Your task to perform on an android device: turn on notifications settings in the gmail app Image 0: 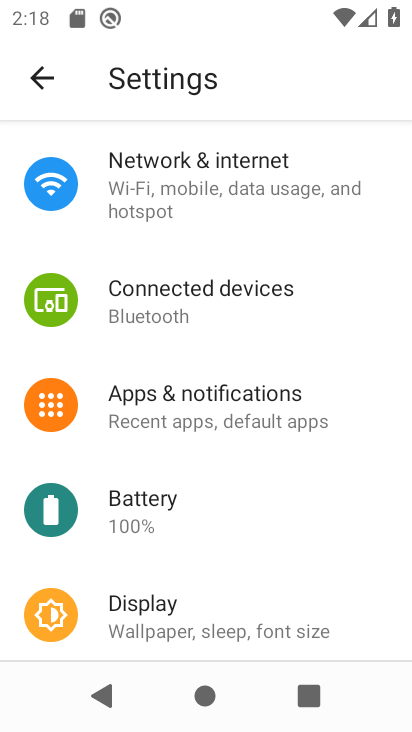
Step 0: press home button
Your task to perform on an android device: turn on notifications settings in the gmail app Image 1: 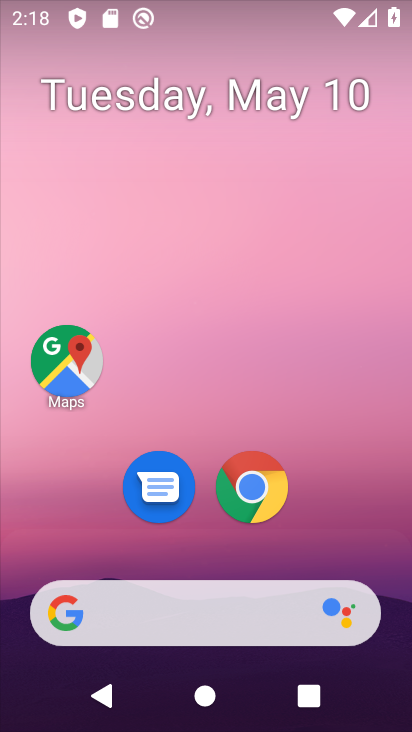
Step 1: drag from (143, 569) to (257, 62)
Your task to perform on an android device: turn on notifications settings in the gmail app Image 2: 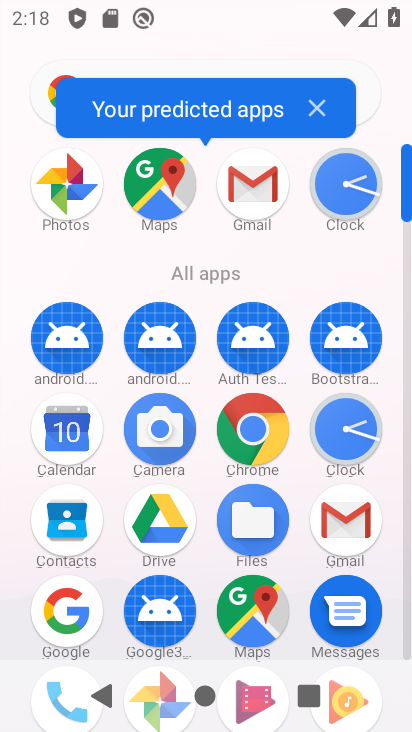
Step 2: click (351, 519)
Your task to perform on an android device: turn on notifications settings in the gmail app Image 3: 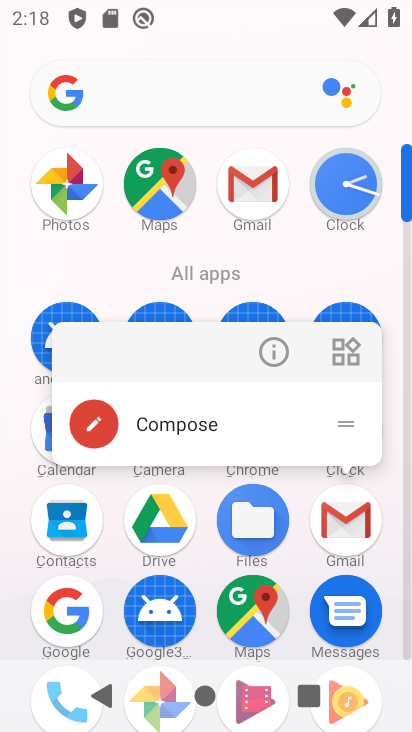
Step 3: click (351, 522)
Your task to perform on an android device: turn on notifications settings in the gmail app Image 4: 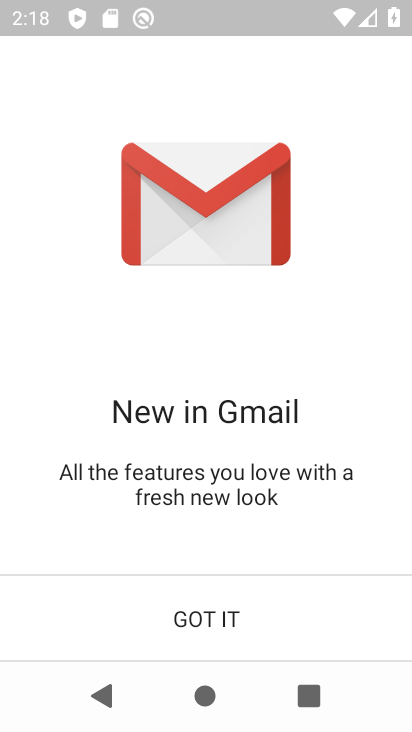
Step 4: click (213, 639)
Your task to perform on an android device: turn on notifications settings in the gmail app Image 5: 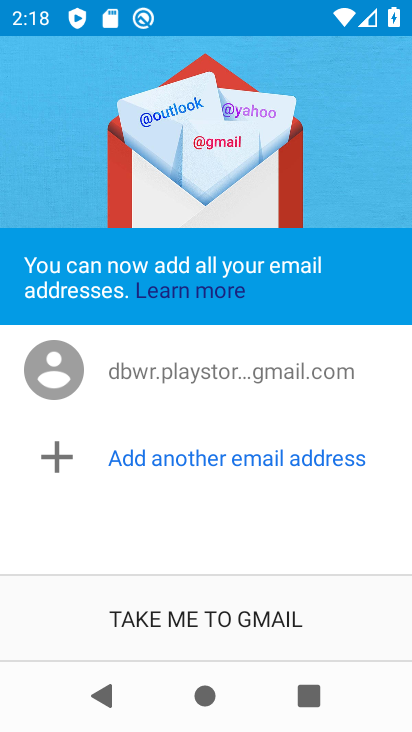
Step 5: click (221, 619)
Your task to perform on an android device: turn on notifications settings in the gmail app Image 6: 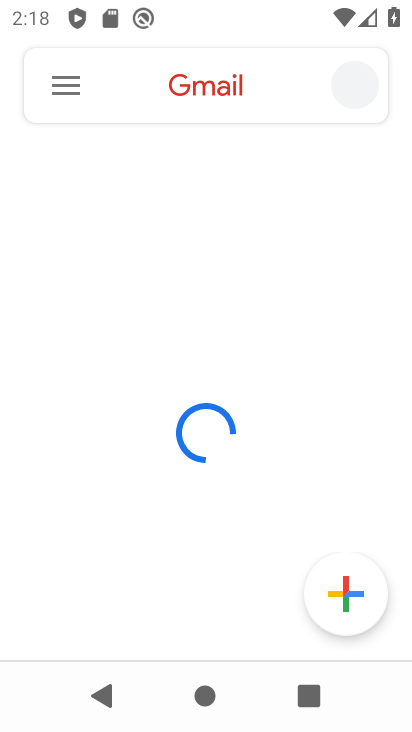
Step 6: click (73, 81)
Your task to perform on an android device: turn on notifications settings in the gmail app Image 7: 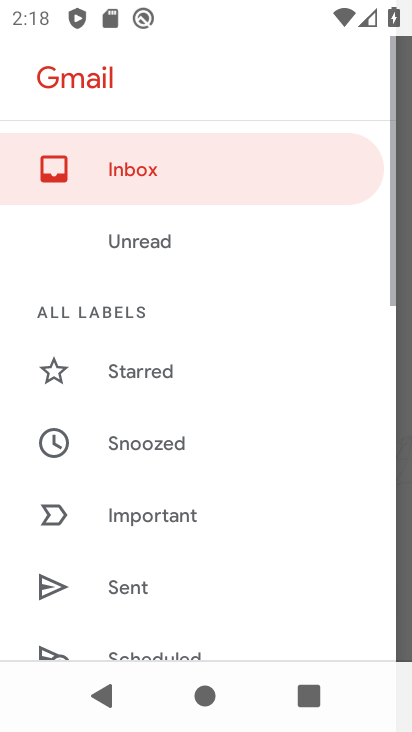
Step 7: drag from (174, 641) to (294, 164)
Your task to perform on an android device: turn on notifications settings in the gmail app Image 8: 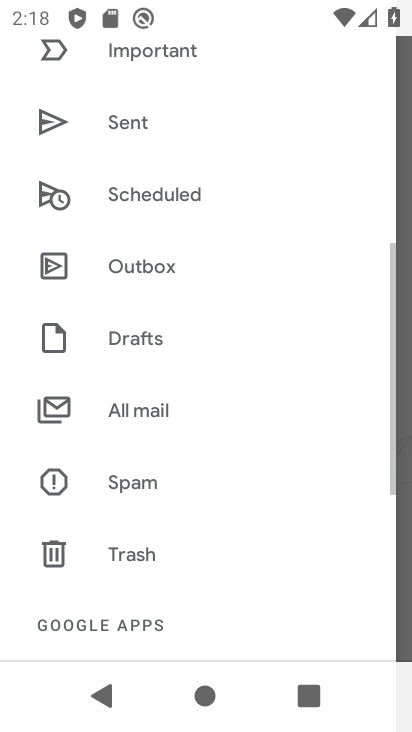
Step 8: drag from (187, 658) to (259, 279)
Your task to perform on an android device: turn on notifications settings in the gmail app Image 9: 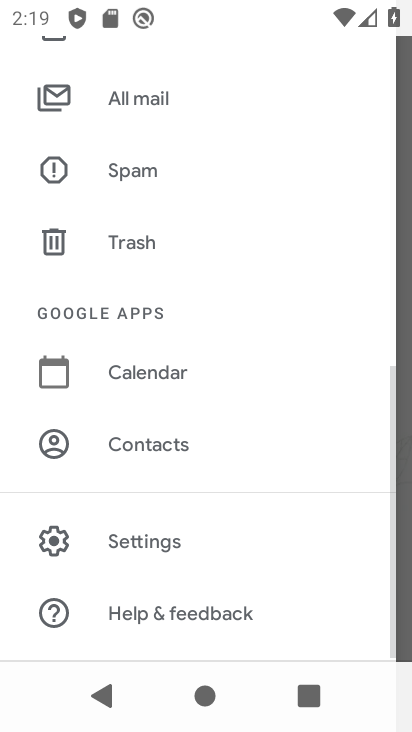
Step 9: click (167, 543)
Your task to perform on an android device: turn on notifications settings in the gmail app Image 10: 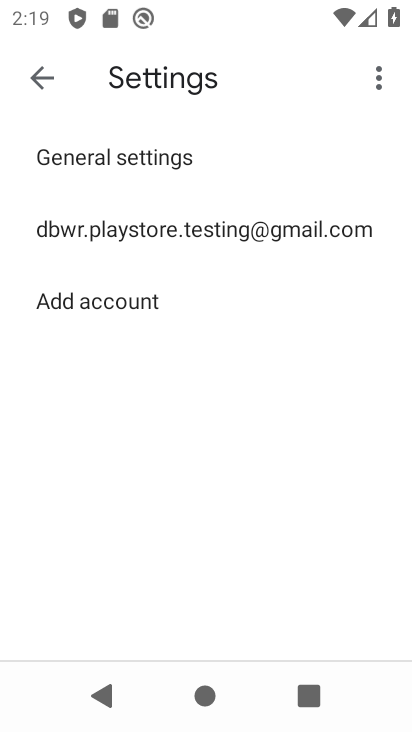
Step 10: click (287, 229)
Your task to perform on an android device: turn on notifications settings in the gmail app Image 11: 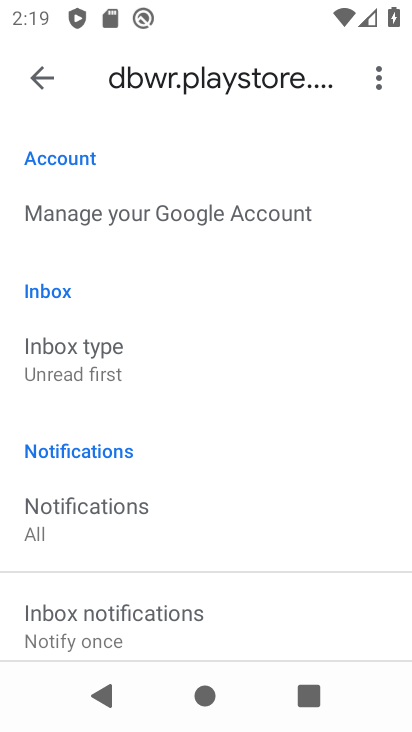
Step 11: drag from (213, 603) to (298, 299)
Your task to perform on an android device: turn on notifications settings in the gmail app Image 12: 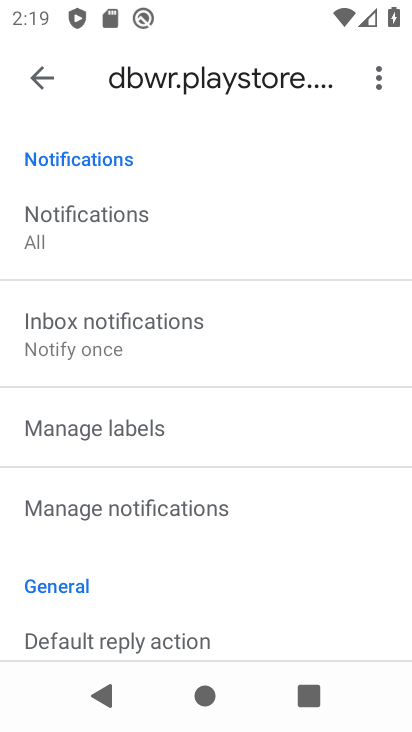
Step 12: click (219, 505)
Your task to perform on an android device: turn on notifications settings in the gmail app Image 13: 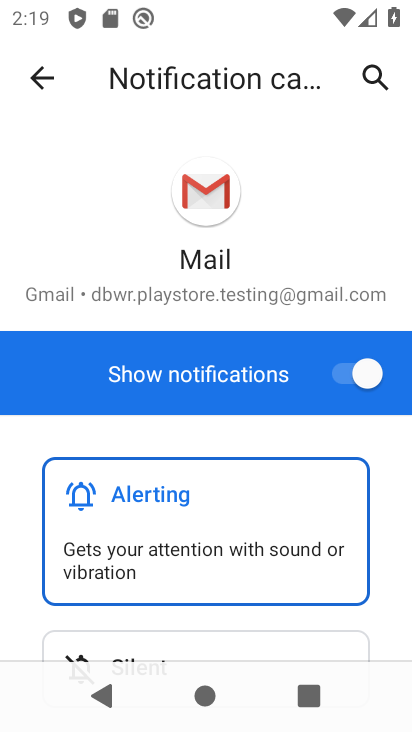
Step 13: task complete